Your task to perform on an android device: change timer sound Image 0: 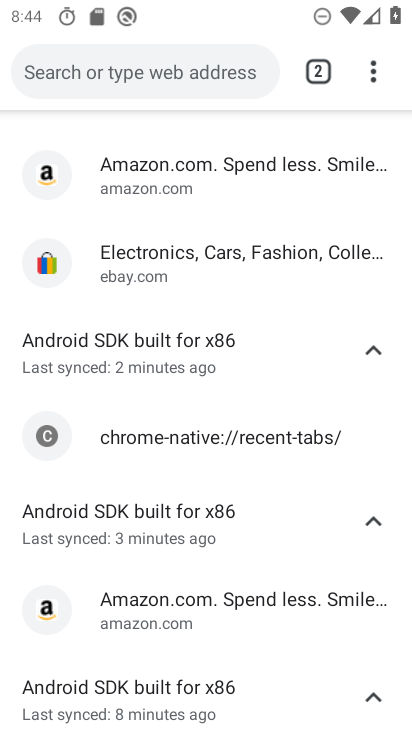
Step 0: press home button
Your task to perform on an android device: change timer sound Image 1: 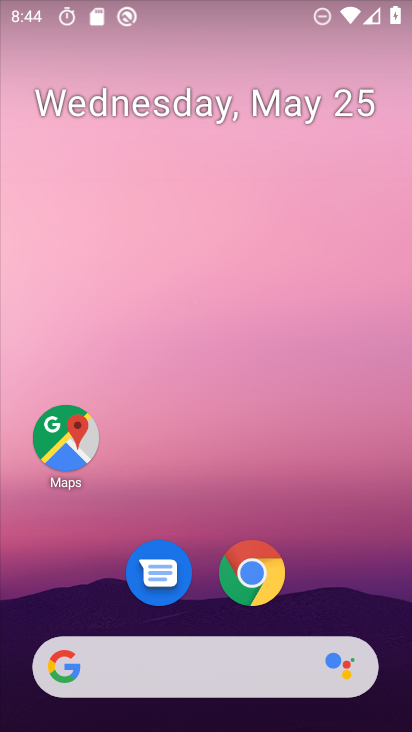
Step 1: drag from (392, 697) to (364, 261)
Your task to perform on an android device: change timer sound Image 2: 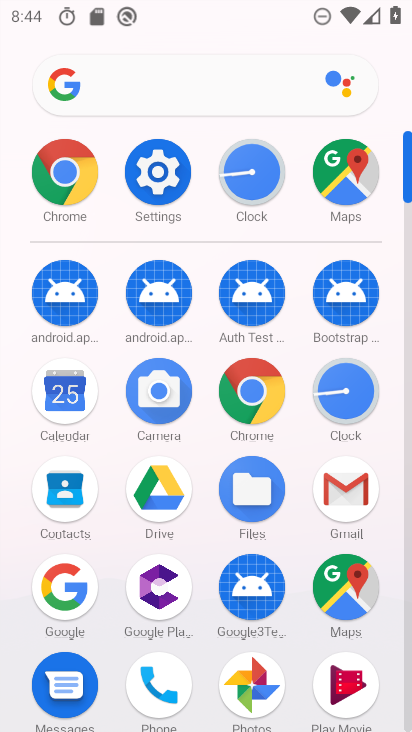
Step 2: click (163, 188)
Your task to perform on an android device: change timer sound Image 3: 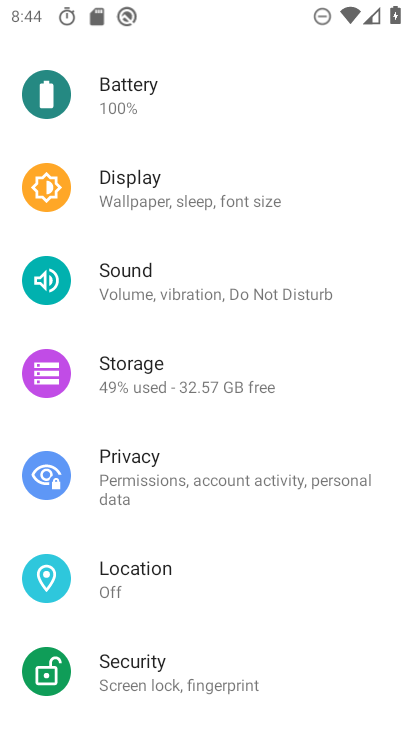
Step 3: click (134, 268)
Your task to perform on an android device: change timer sound Image 4: 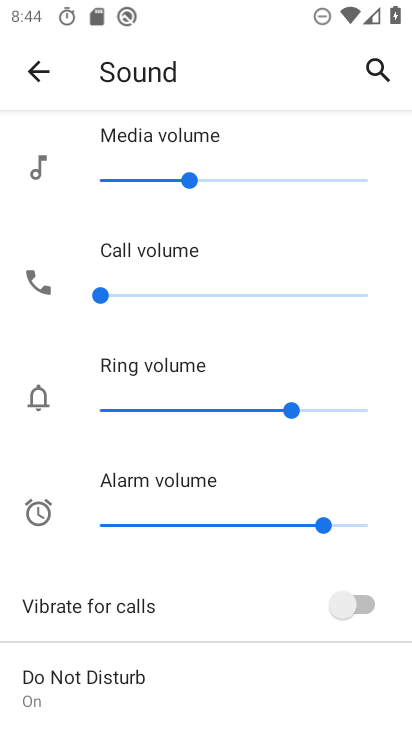
Step 4: drag from (199, 687) to (198, 404)
Your task to perform on an android device: change timer sound Image 5: 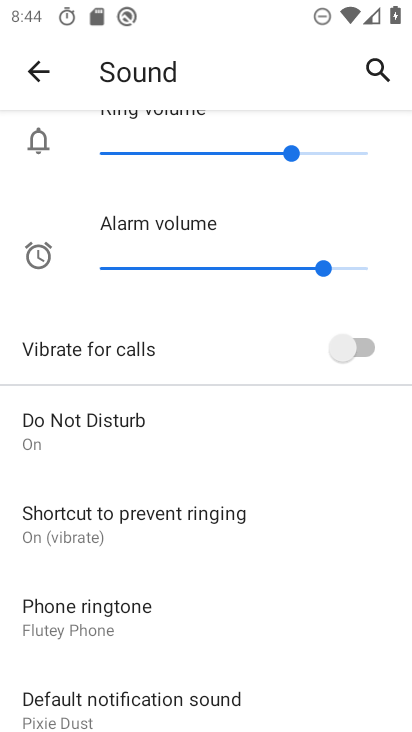
Step 5: drag from (201, 623) to (170, 361)
Your task to perform on an android device: change timer sound Image 6: 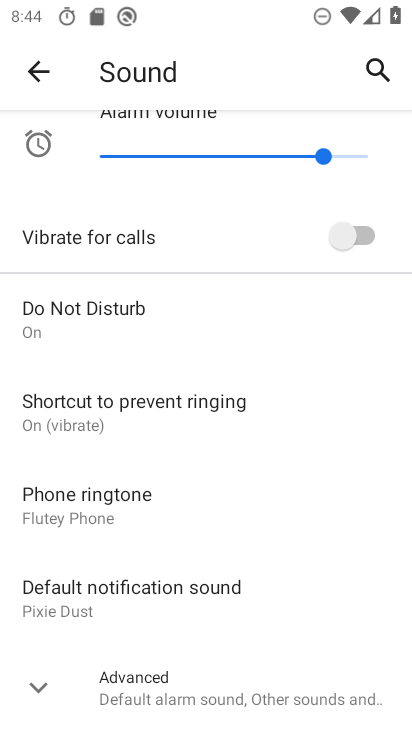
Step 6: press home button
Your task to perform on an android device: change timer sound Image 7: 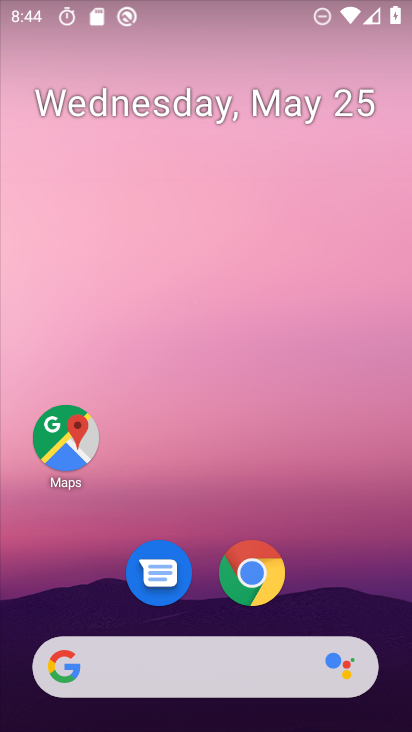
Step 7: drag from (396, 653) to (383, 51)
Your task to perform on an android device: change timer sound Image 8: 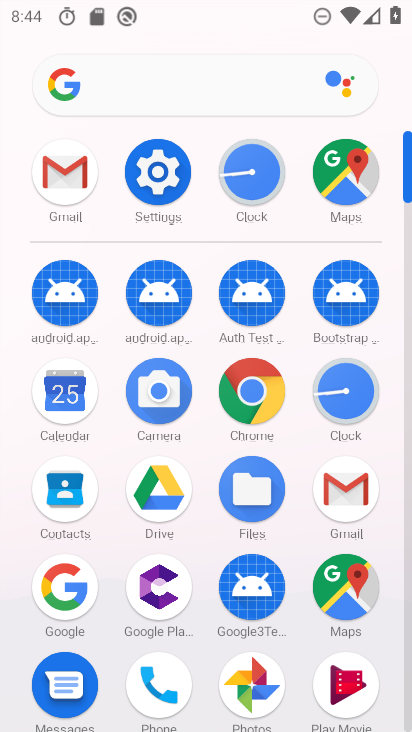
Step 8: click (337, 400)
Your task to perform on an android device: change timer sound Image 9: 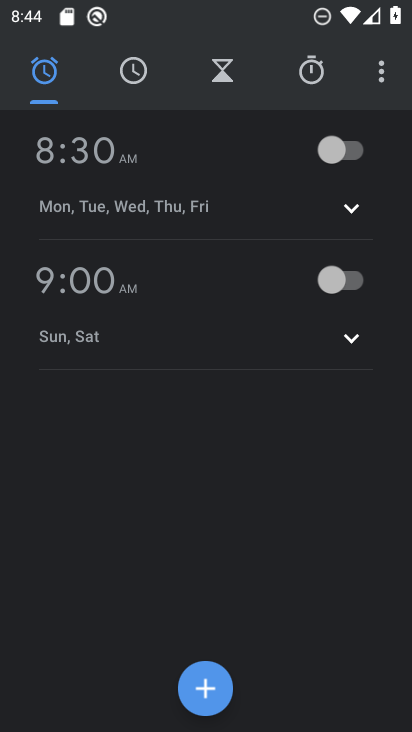
Step 9: click (377, 70)
Your task to perform on an android device: change timer sound Image 10: 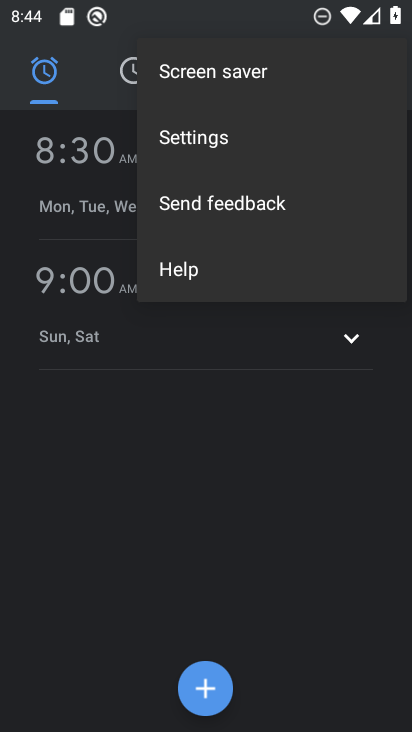
Step 10: click (205, 127)
Your task to perform on an android device: change timer sound Image 11: 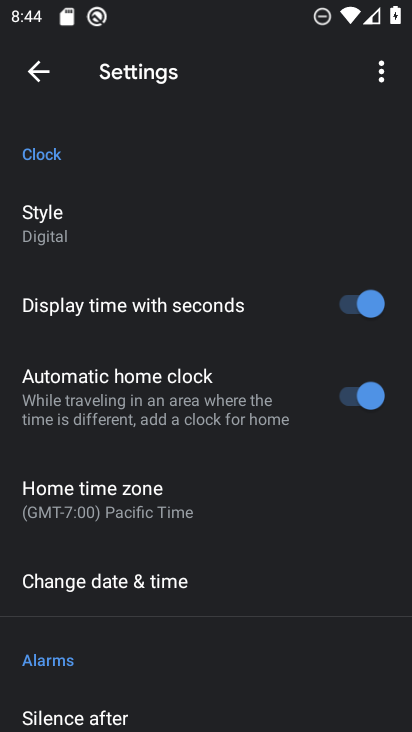
Step 11: drag from (235, 658) to (230, 286)
Your task to perform on an android device: change timer sound Image 12: 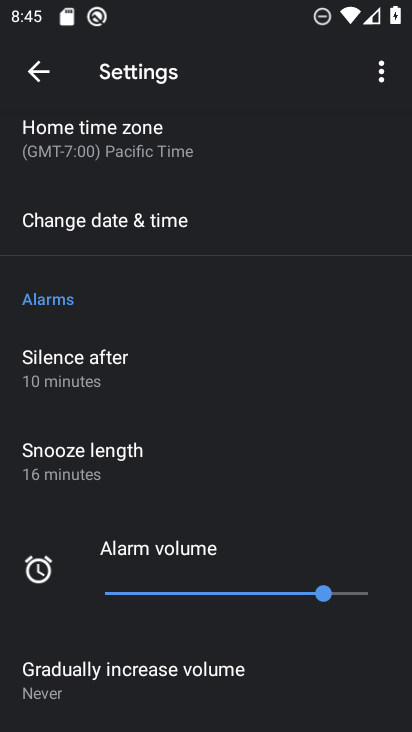
Step 12: drag from (255, 522) to (259, 276)
Your task to perform on an android device: change timer sound Image 13: 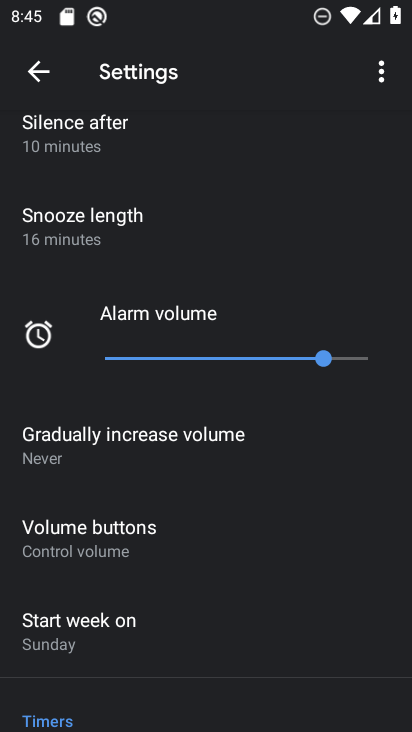
Step 13: drag from (195, 688) to (179, 377)
Your task to perform on an android device: change timer sound Image 14: 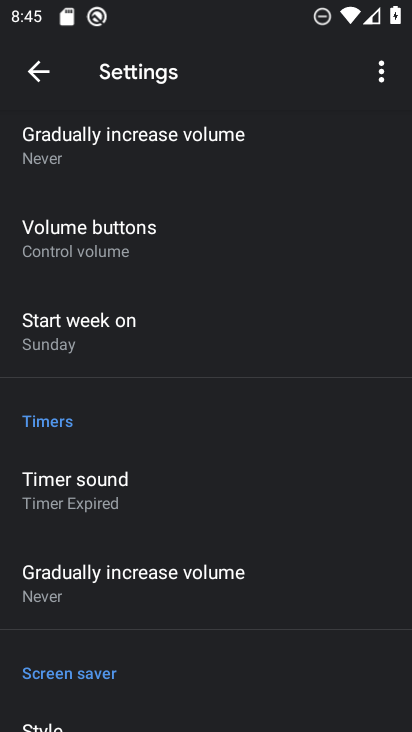
Step 14: drag from (250, 674) to (252, 288)
Your task to perform on an android device: change timer sound Image 15: 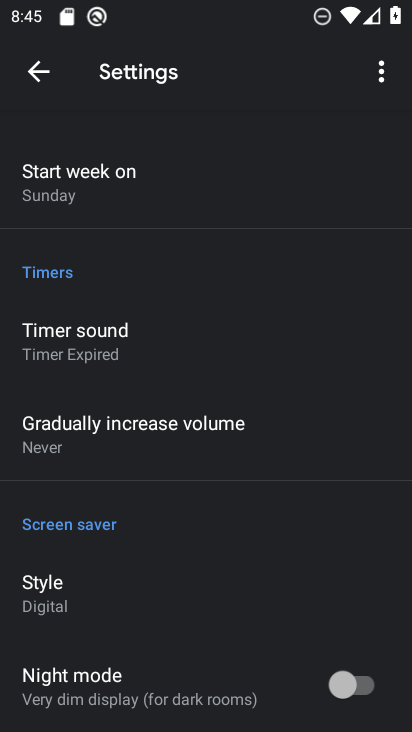
Step 15: drag from (207, 546) to (215, 216)
Your task to perform on an android device: change timer sound Image 16: 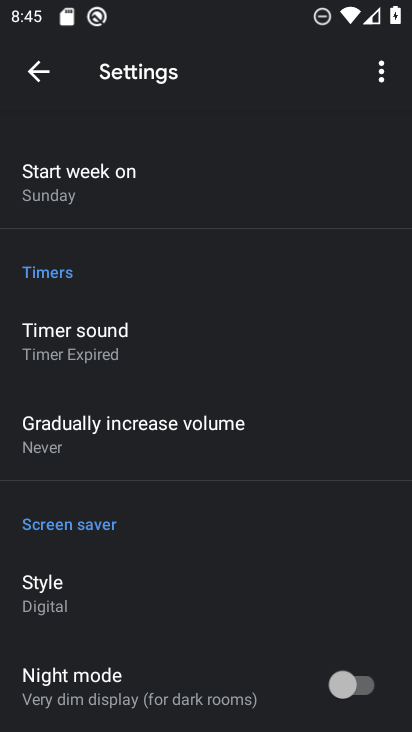
Step 16: click (60, 328)
Your task to perform on an android device: change timer sound Image 17: 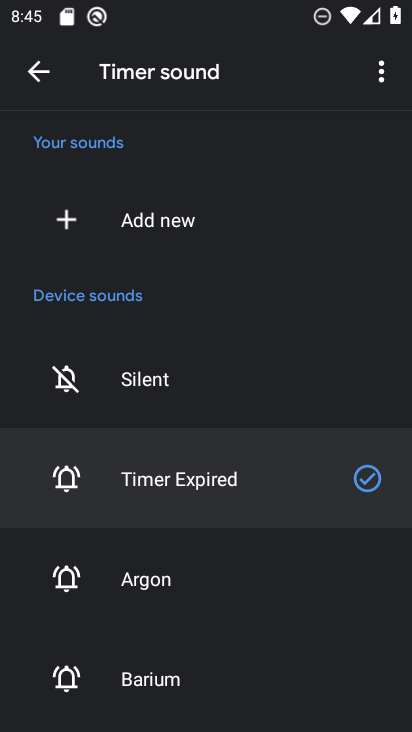
Step 17: click (133, 679)
Your task to perform on an android device: change timer sound Image 18: 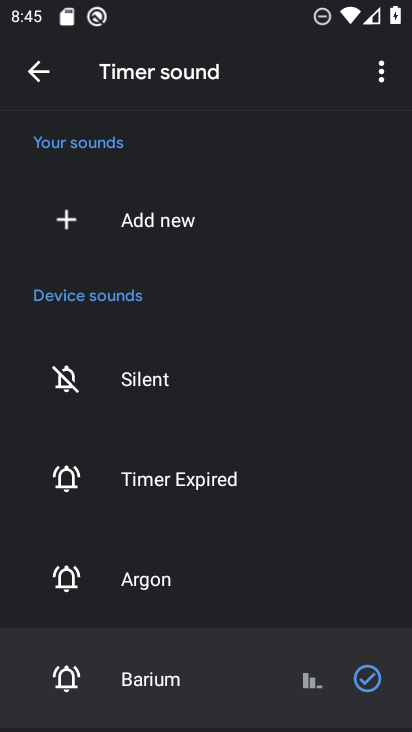
Step 18: task complete